Your task to perform on an android device: Open Yahoo.com Image 0: 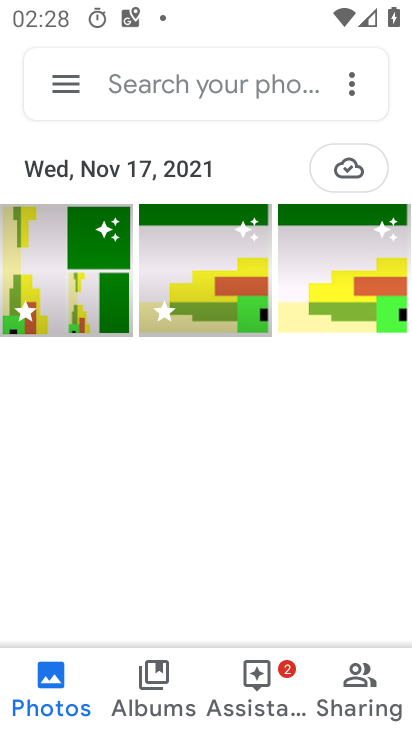
Step 0: click (262, 80)
Your task to perform on an android device: Open Yahoo.com Image 1: 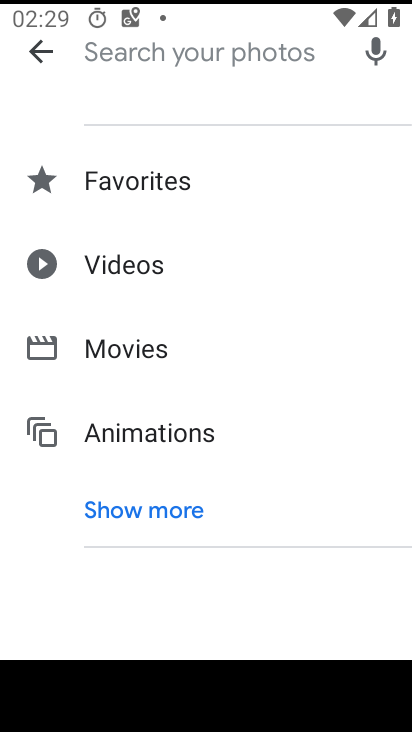
Step 1: press home button
Your task to perform on an android device: Open Yahoo.com Image 2: 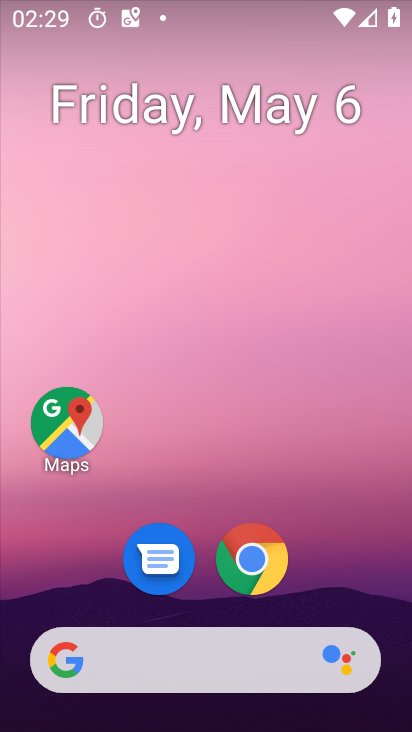
Step 2: click (260, 545)
Your task to perform on an android device: Open Yahoo.com Image 3: 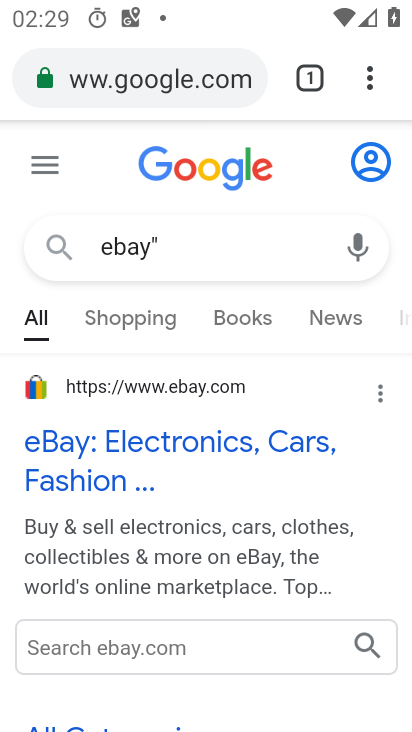
Step 3: click (187, 65)
Your task to perform on an android device: Open Yahoo.com Image 4: 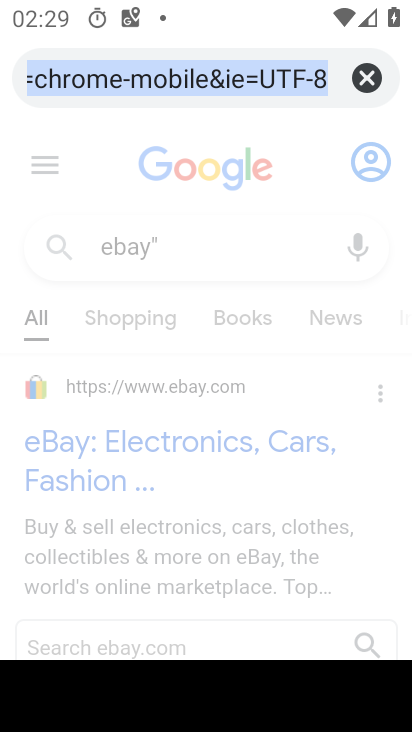
Step 4: click (366, 77)
Your task to perform on an android device: Open Yahoo.com Image 5: 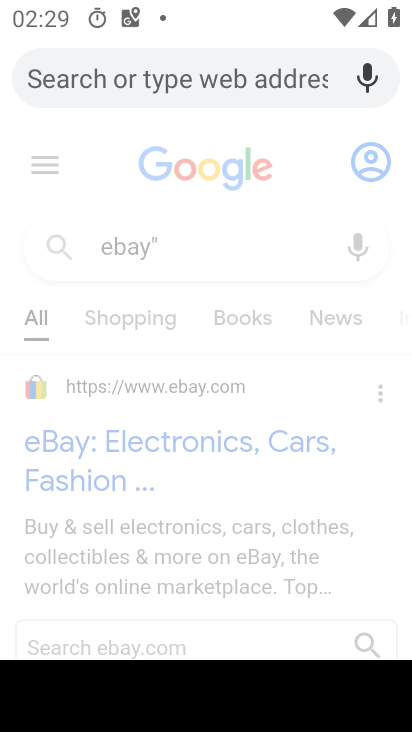
Step 5: type "yahoo.com"
Your task to perform on an android device: Open Yahoo.com Image 6: 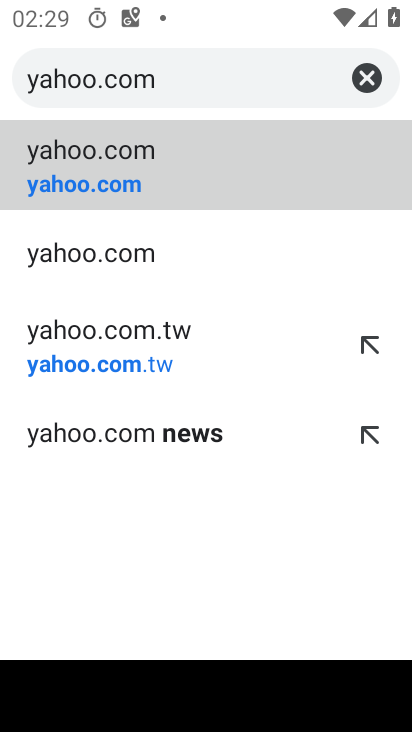
Step 6: click (261, 182)
Your task to perform on an android device: Open Yahoo.com Image 7: 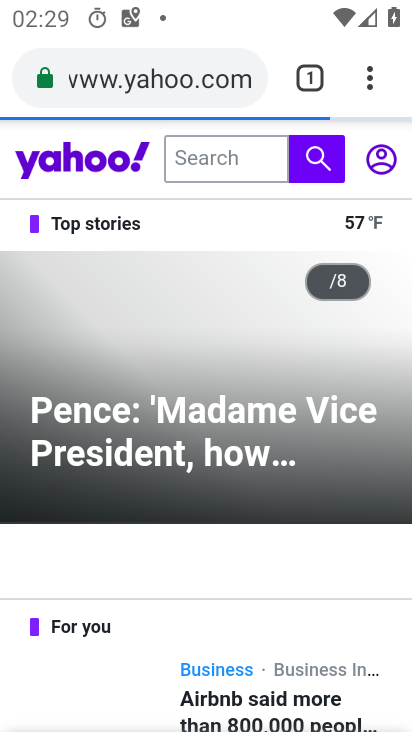
Step 7: task complete